Your task to perform on an android device: Search for vegetarian restaurants on Maps Image 0: 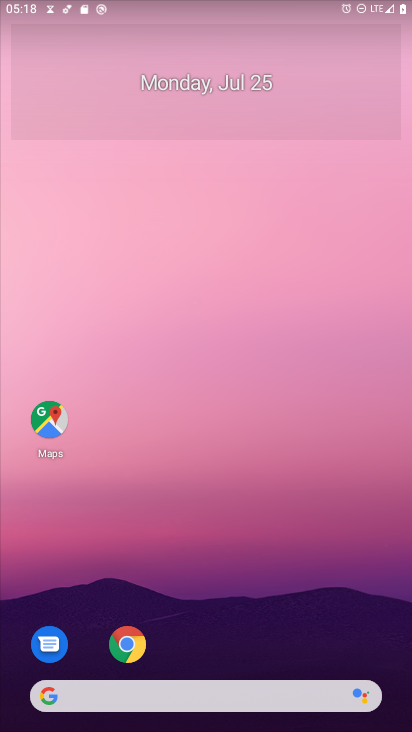
Step 0: press home button
Your task to perform on an android device: Search for vegetarian restaurants on Maps Image 1: 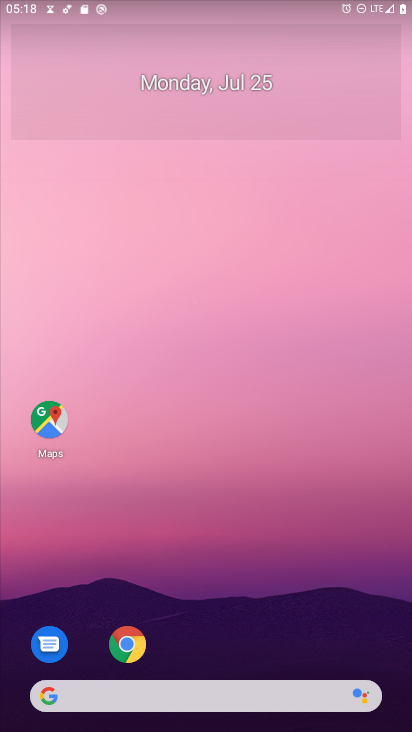
Step 1: click (53, 422)
Your task to perform on an android device: Search for vegetarian restaurants on Maps Image 2: 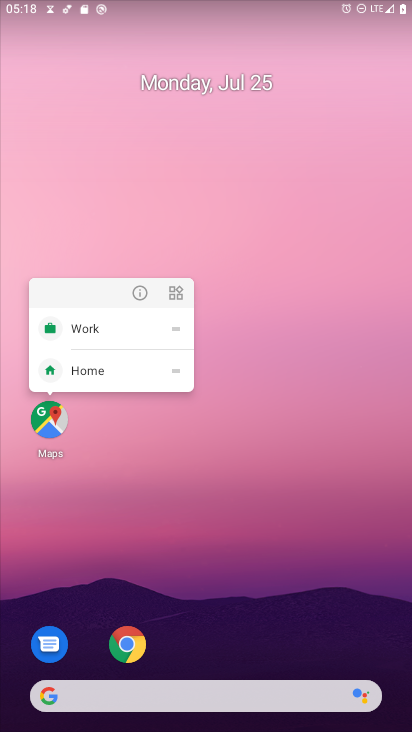
Step 2: click (47, 420)
Your task to perform on an android device: Search for vegetarian restaurants on Maps Image 3: 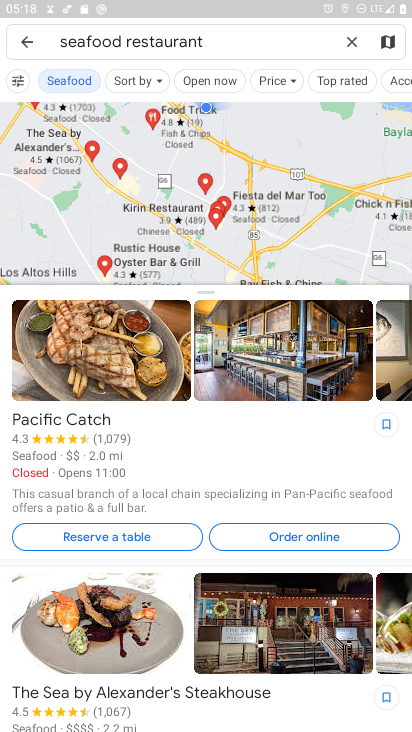
Step 3: click (354, 38)
Your task to perform on an android device: Search for vegetarian restaurants on Maps Image 4: 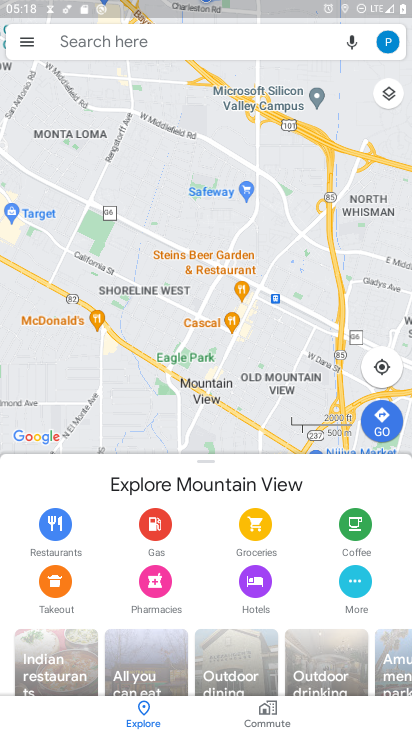
Step 4: click (175, 39)
Your task to perform on an android device: Search for vegetarian restaurants on Maps Image 5: 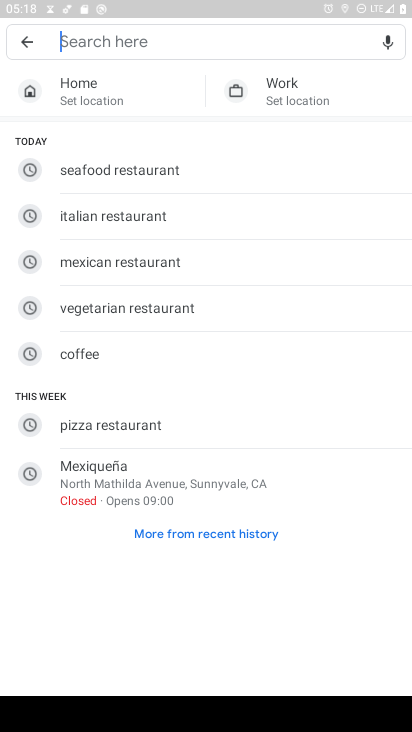
Step 5: click (94, 308)
Your task to perform on an android device: Search for vegetarian restaurants on Maps Image 6: 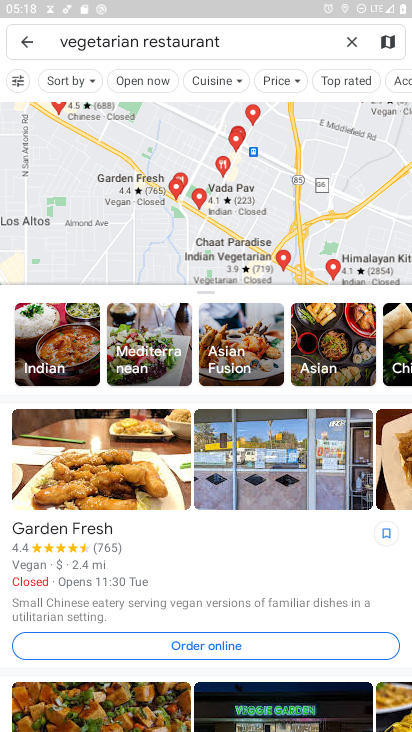
Step 6: task complete